Your task to perform on an android device: turn off javascript in the chrome app Image 0: 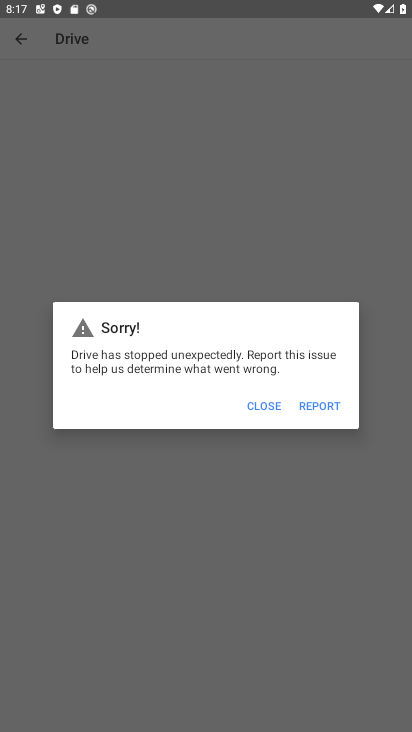
Step 0: press back button
Your task to perform on an android device: turn off javascript in the chrome app Image 1: 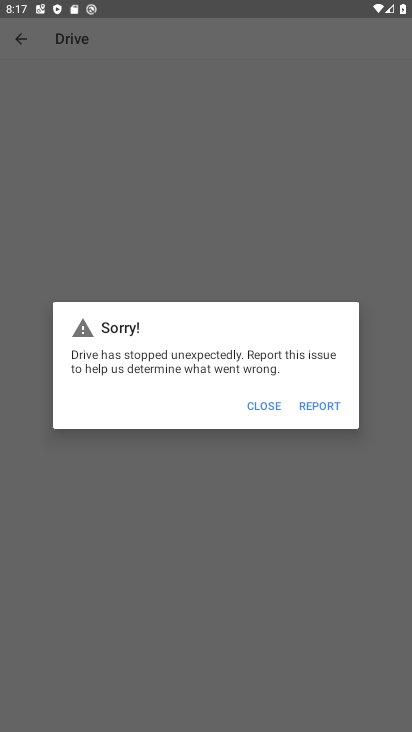
Step 1: press home button
Your task to perform on an android device: turn off javascript in the chrome app Image 2: 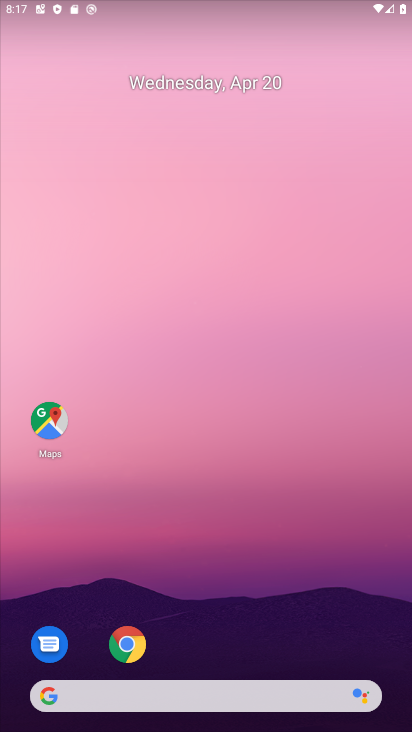
Step 2: drag from (295, 619) to (297, 87)
Your task to perform on an android device: turn off javascript in the chrome app Image 3: 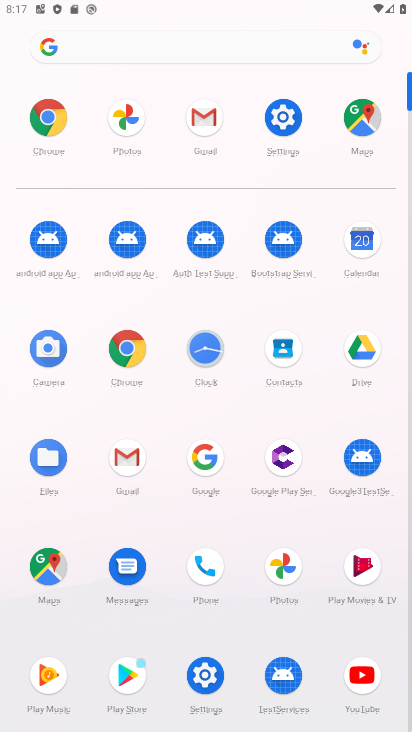
Step 3: click (123, 348)
Your task to perform on an android device: turn off javascript in the chrome app Image 4: 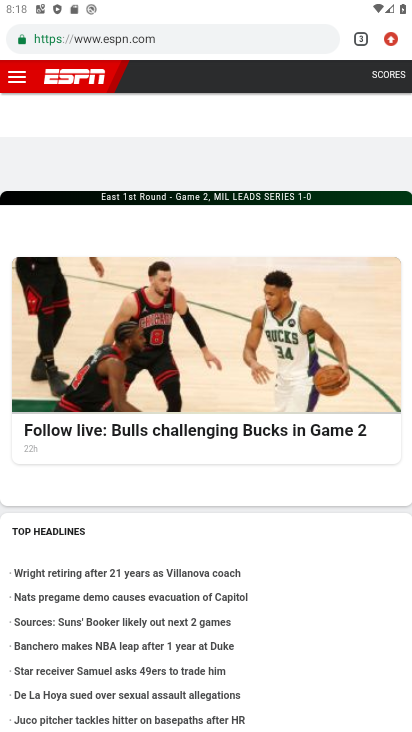
Step 4: click (381, 35)
Your task to perform on an android device: turn off javascript in the chrome app Image 5: 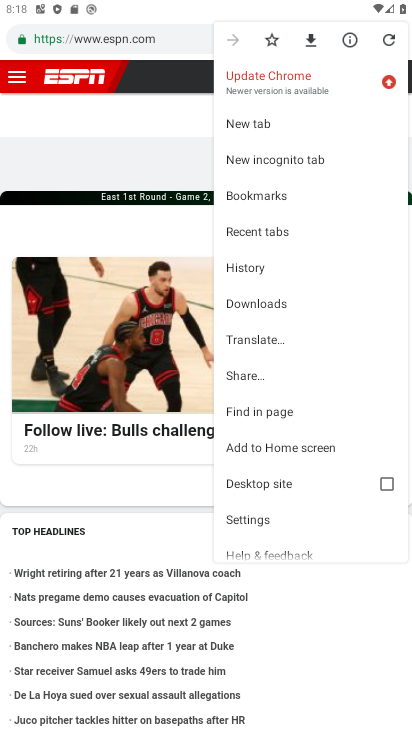
Step 5: click (279, 520)
Your task to perform on an android device: turn off javascript in the chrome app Image 6: 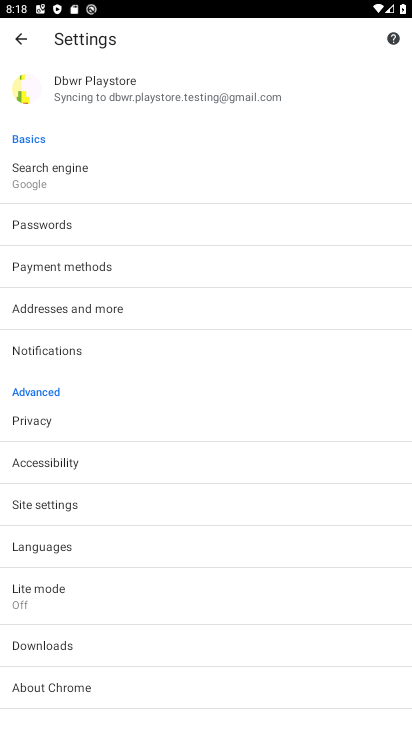
Step 6: click (108, 509)
Your task to perform on an android device: turn off javascript in the chrome app Image 7: 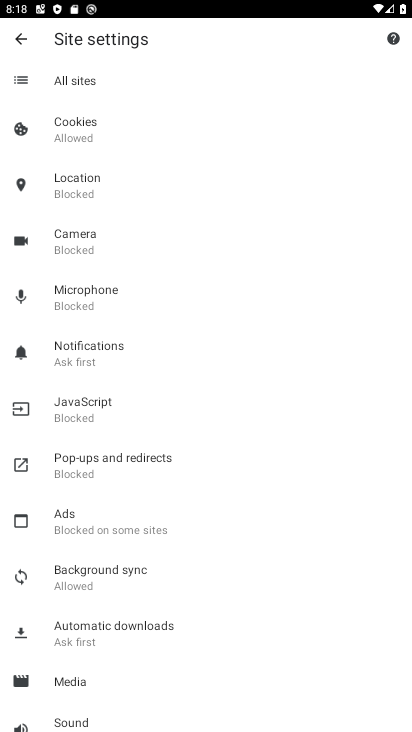
Step 7: click (110, 427)
Your task to perform on an android device: turn off javascript in the chrome app Image 8: 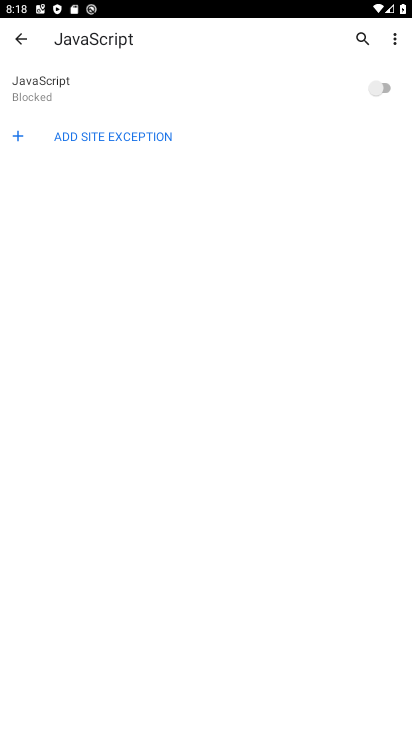
Step 8: task complete